Your task to perform on an android device: open app "Walmart Shopping & Grocery" Image 0: 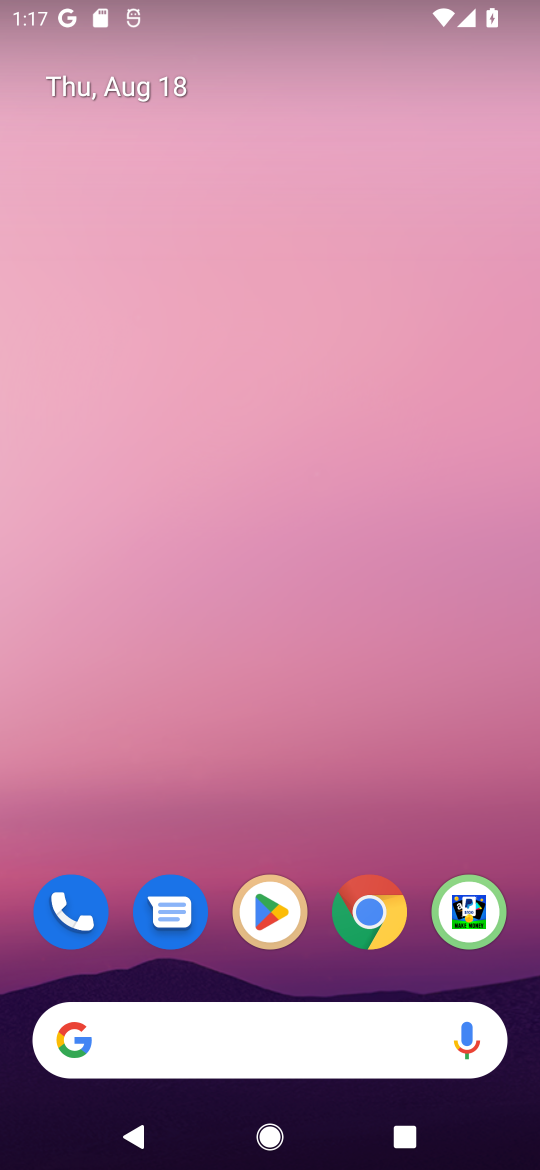
Step 0: click (255, 928)
Your task to perform on an android device: open app "Walmart Shopping & Grocery" Image 1: 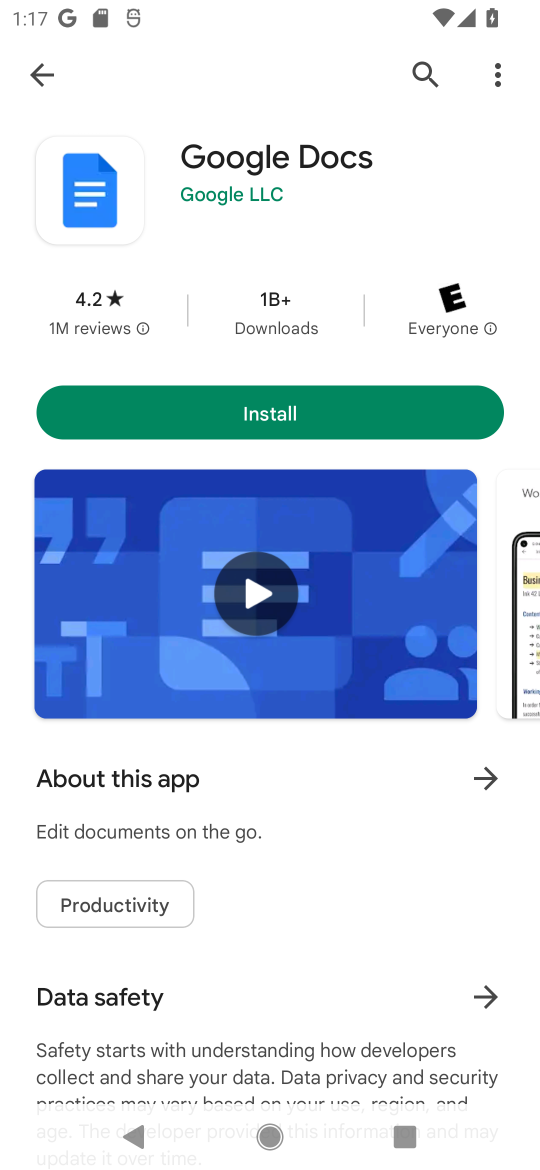
Step 1: click (430, 57)
Your task to perform on an android device: open app "Walmart Shopping & Grocery" Image 2: 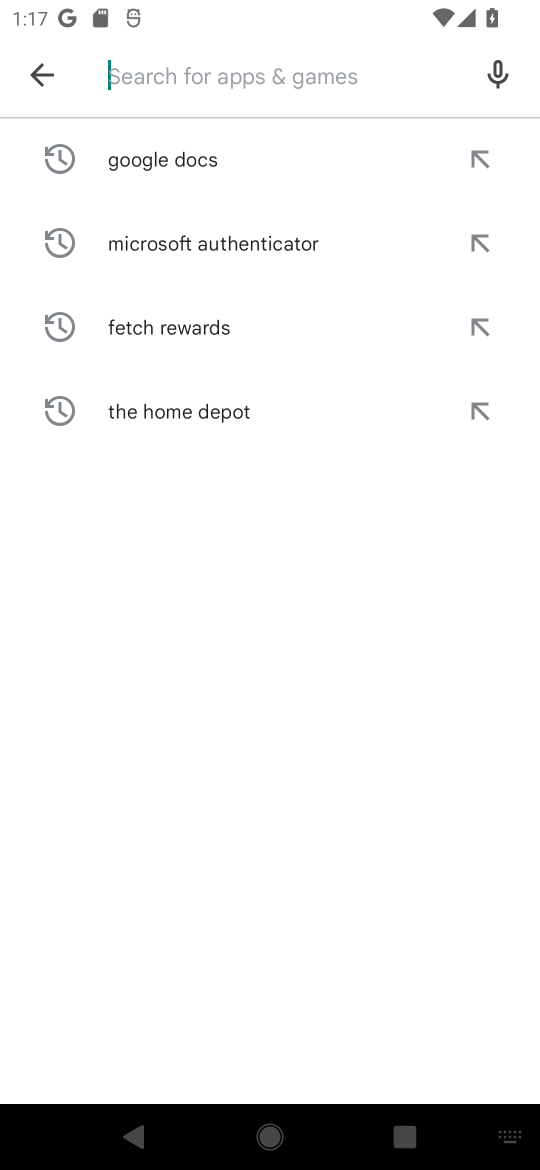
Step 2: click (134, 84)
Your task to perform on an android device: open app "Walmart Shopping & Grocery" Image 3: 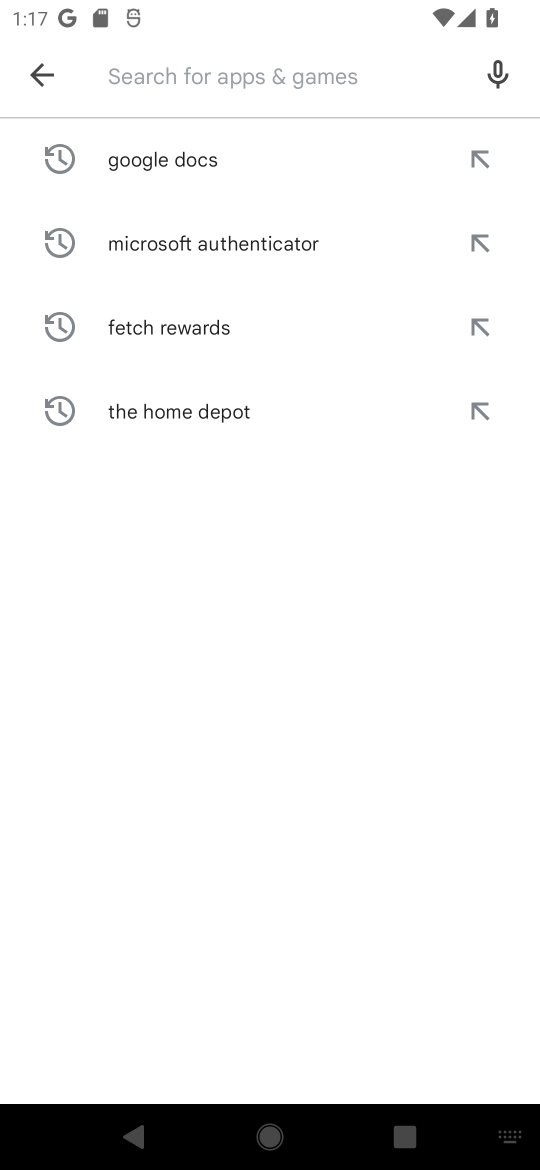
Step 3: type "Walmart Shopping & Grocery"
Your task to perform on an android device: open app "Walmart Shopping & Grocery" Image 4: 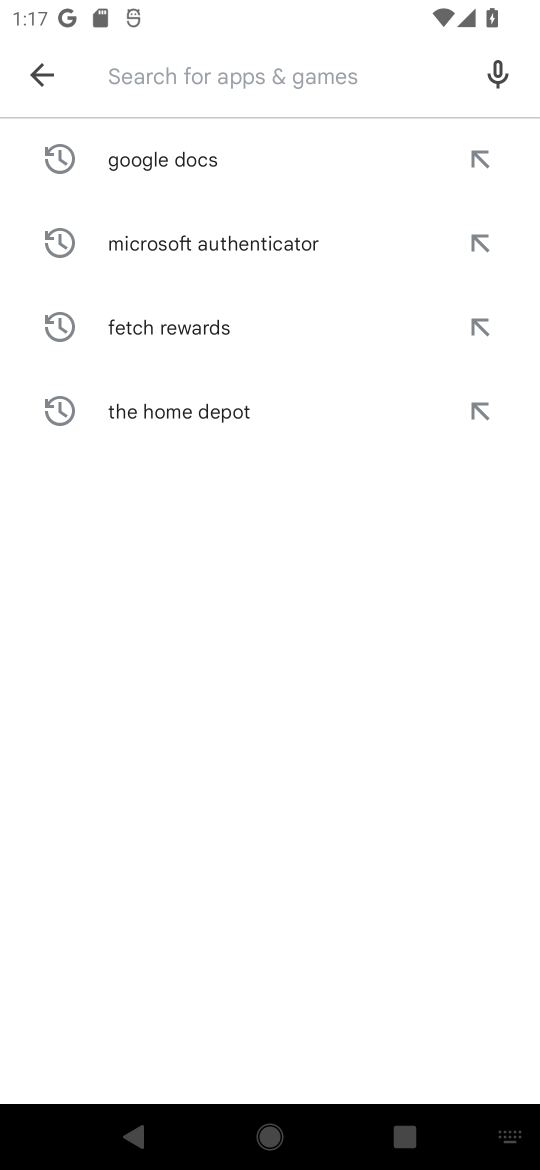
Step 4: click (323, 649)
Your task to perform on an android device: open app "Walmart Shopping & Grocery" Image 5: 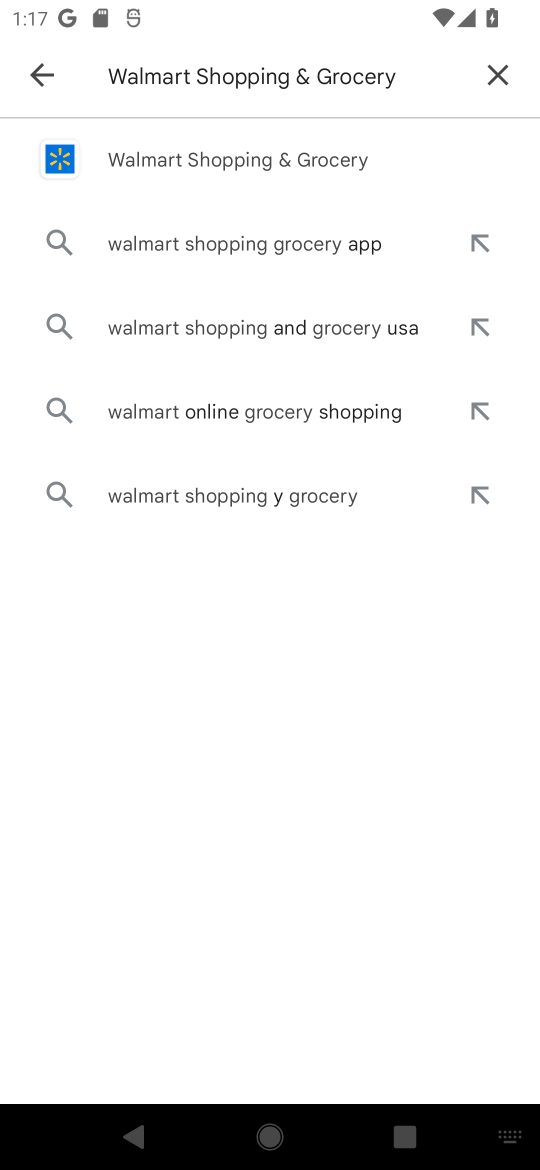
Step 5: click (230, 149)
Your task to perform on an android device: open app "Walmart Shopping & Grocery" Image 6: 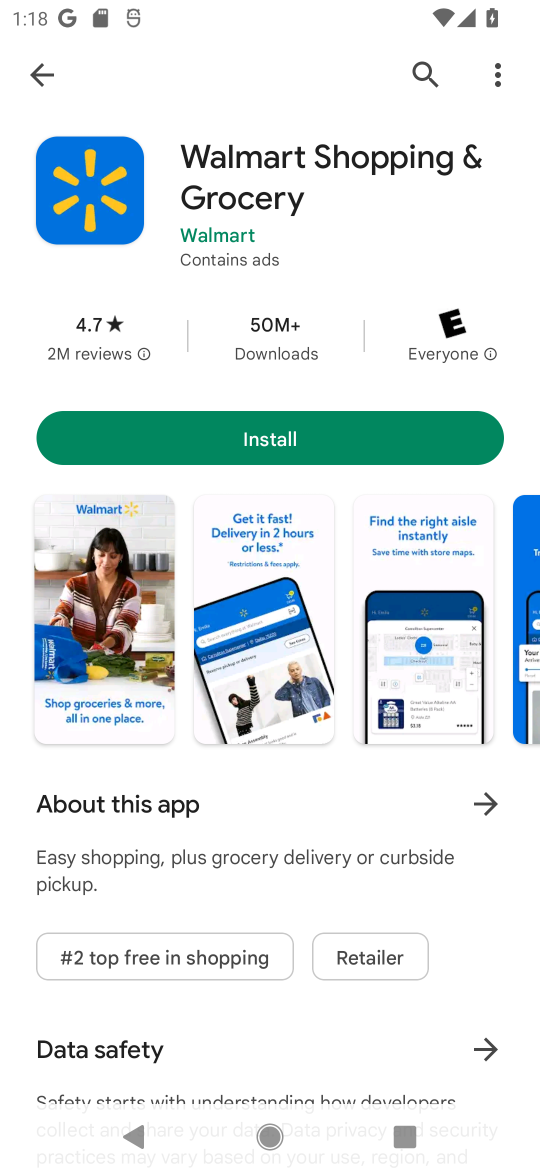
Step 6: task complete